Your task to perform on an android device: Search for vegetarian restaurants on Maps Image 0: 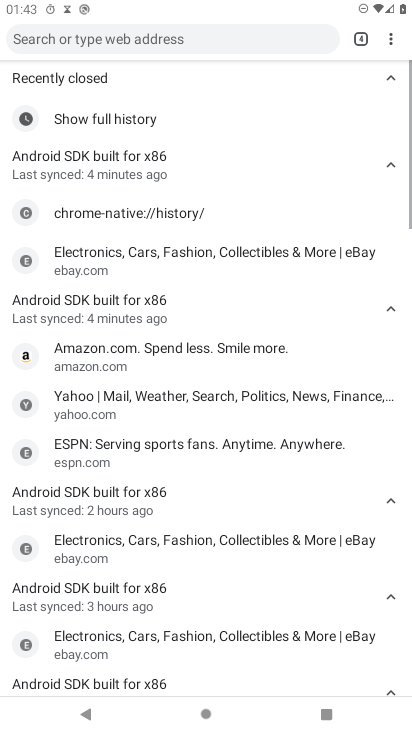
Step 0: press home button
Your task to perform on an android device: Search for vegetarian restaurants on Maps Image 1: 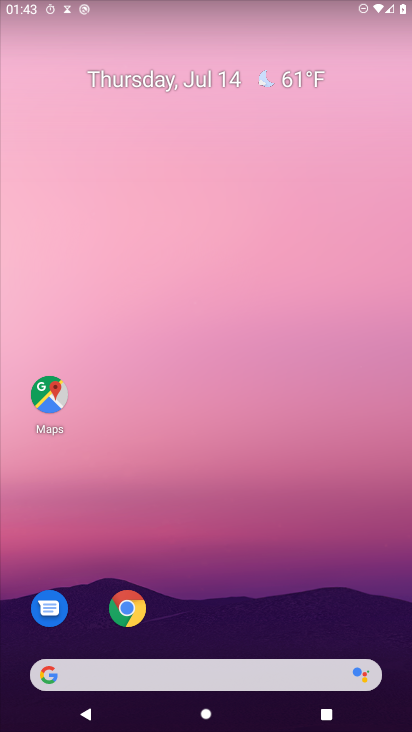
Step 1: click (44, 384)
Your task to perform on an android device: Search for vegetarian restaurants on Maps Image 2: 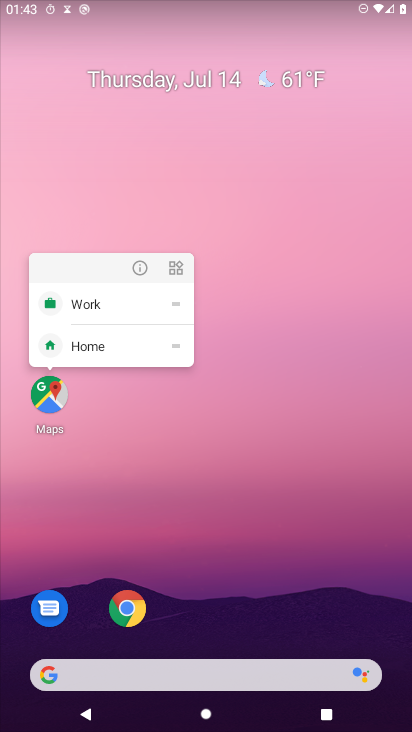
Step 2: click (44, 384)
Your task to perform on an android device: Search for vegetarian restaurants on Maps Image 3: 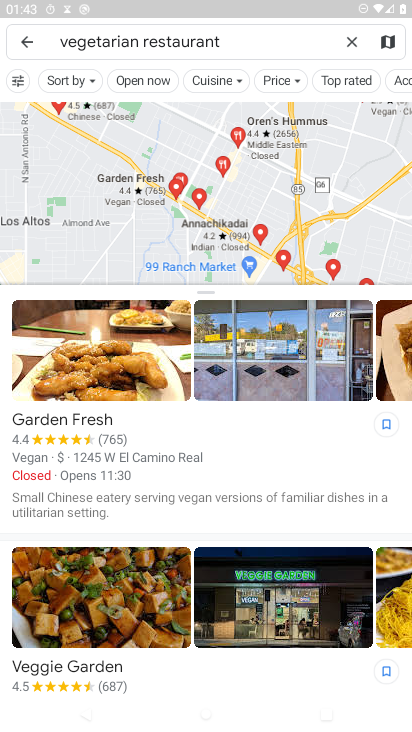
Step 3: task complete